Your task to perform on an android device: Go to Amazon Image 0: 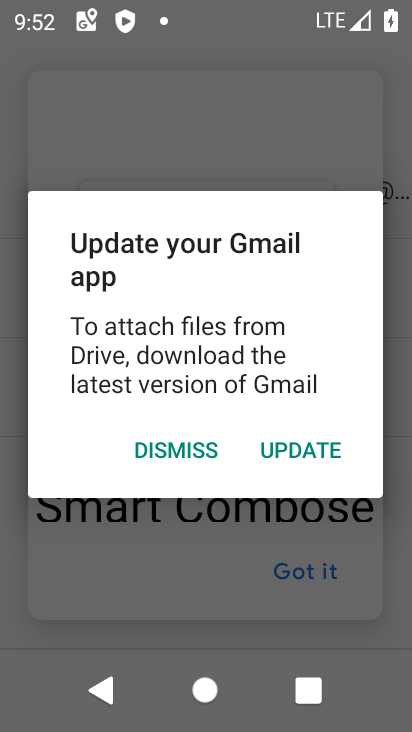
Step 0: press home button
Your task to perform on an android device: Go to Amazon Image 1: 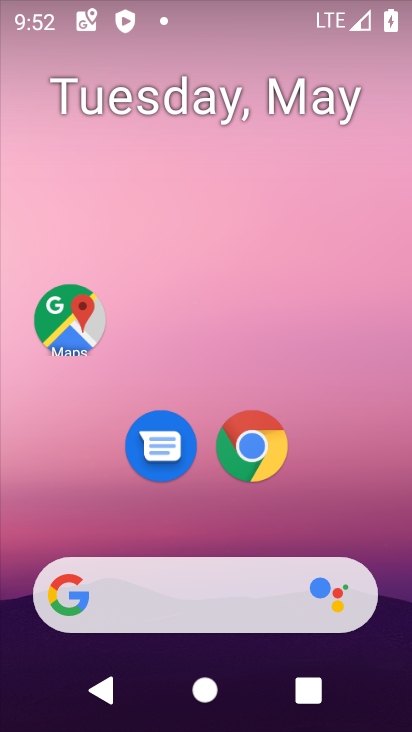
Step 1: click (263, 452)
Your task to perform on an android device: Go to Amazon Image 2: 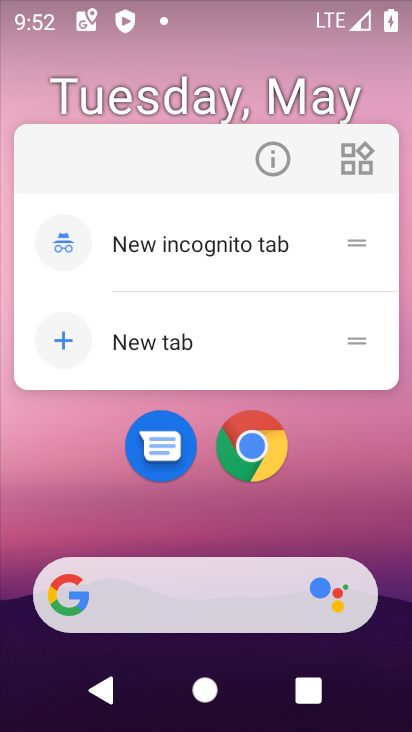
Step 2: click (263, 452)
Your task to perform on an android device: Go to Amazon Image 3: 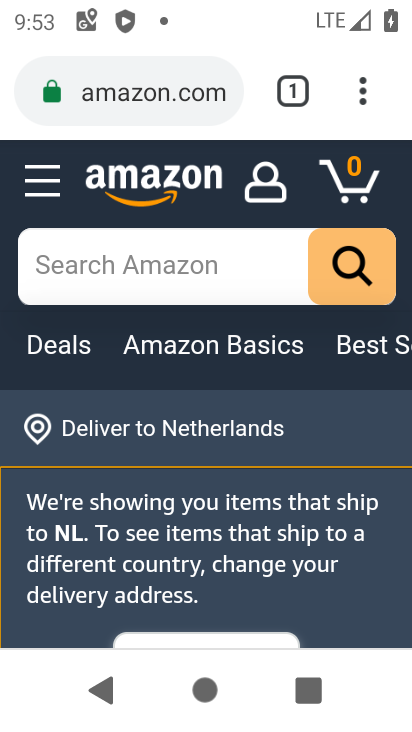
Step 3: task complete